Your task to perform on an android device: turn notification dots off Image 0: 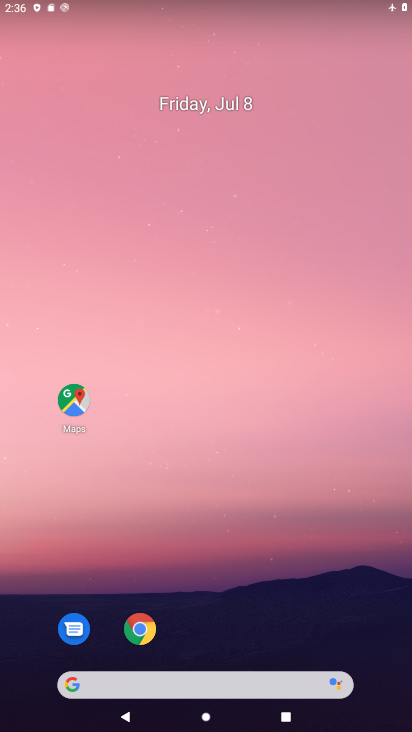
Step 0: drag from (64, 582) to (213, 203)
Your task to perform on an android device: turn notification dots off Image 1: 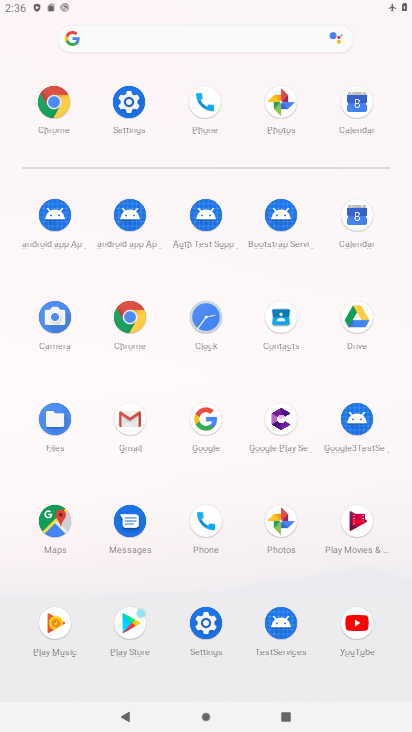
Step 1: click (197, 633)
Your task to perform on an android device: turn notification dots off Image 2: 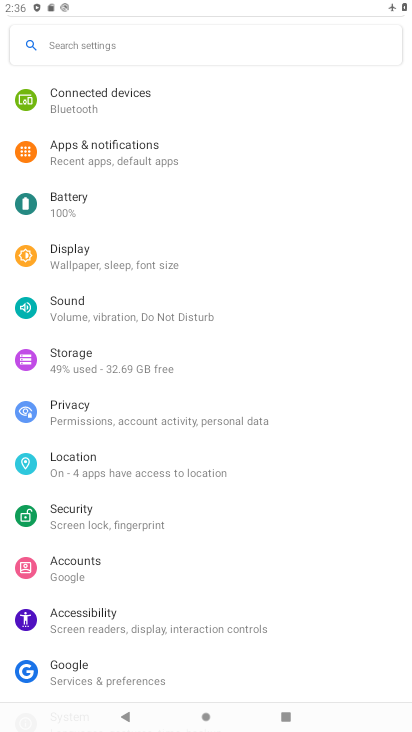
Step 2: click (130, 161)
Your task to perform on an android device: turn notification dots off Image 3: 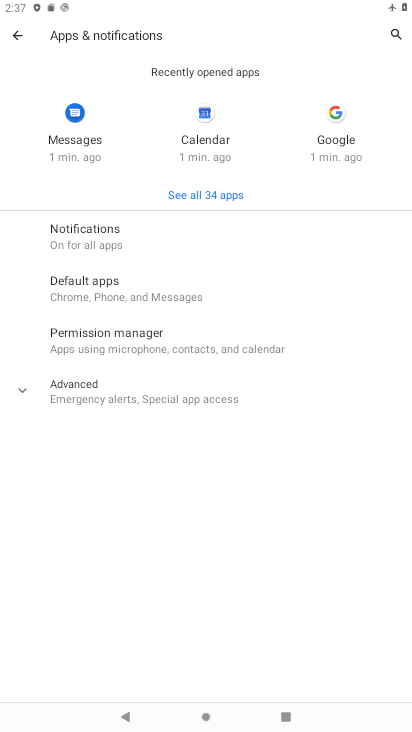
Step 3: click (100, 224)
Your task to perform on an android device: turn notification dots off Image 4: 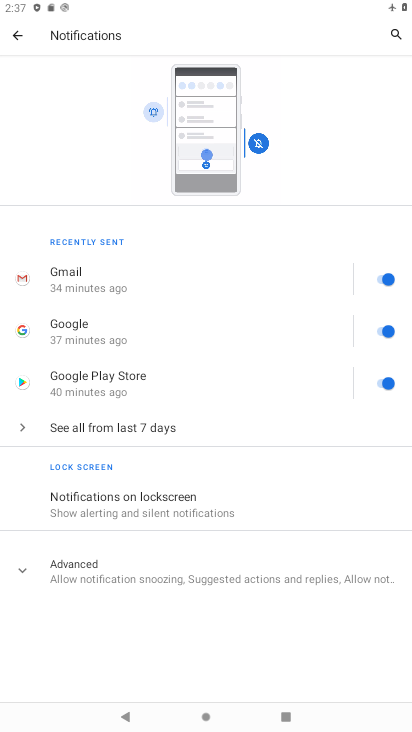
Step 4: click (90, 570)
Your task to perform on an android device: turn notification dots off Image 5: 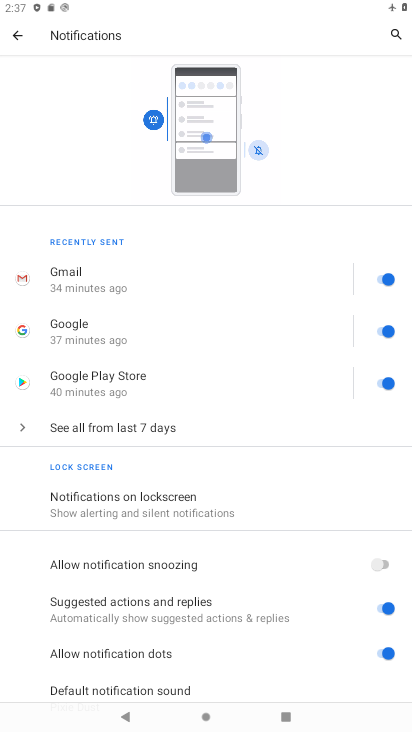
Step 5: drag from (190, 685) to (374, 646)
Your task to perform on an android device: turn notification dots off Image 6: 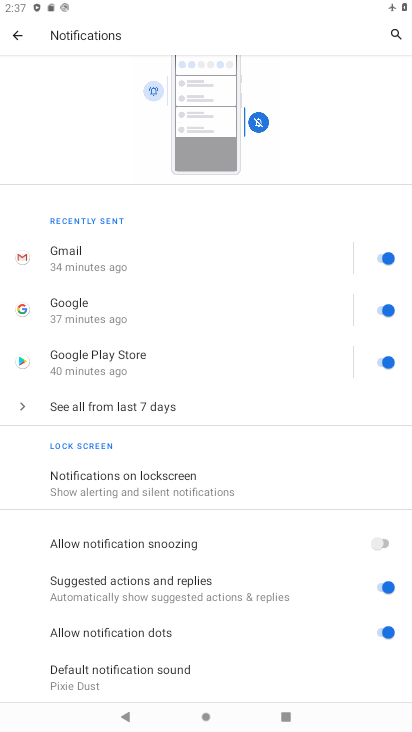
Step 6: click (391, 626)
Your task to perform on an android device: turn notification dots off Image 7: 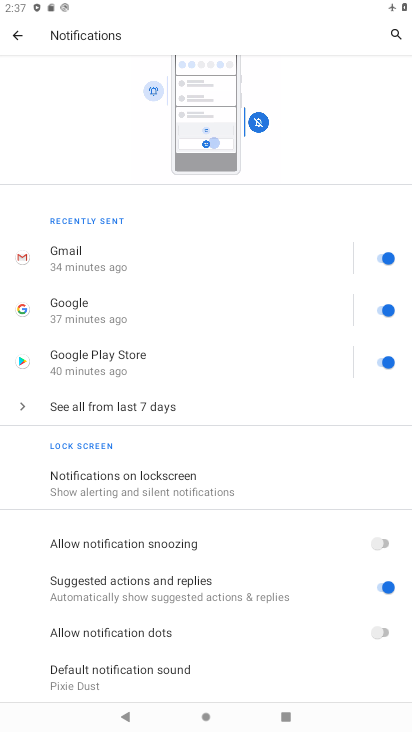
Step 7: task complete